Your task to perform on an android device: delete a single message in the gmail app Image 0: 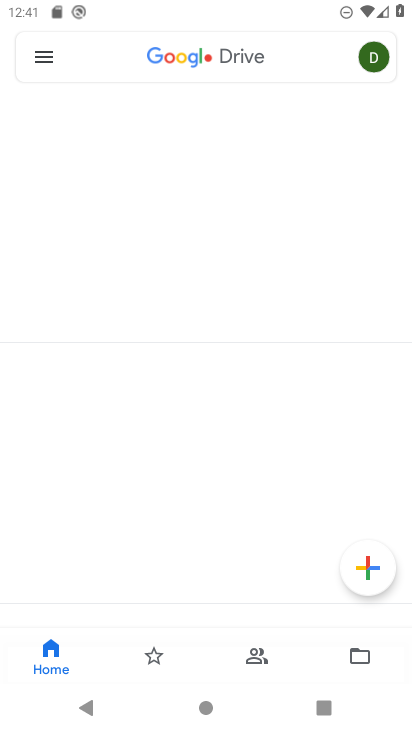
Step 0: drag from (206, 600) to (337, 136)
Your task to perform on an android device: delete a single message in the gmail app Image 1: 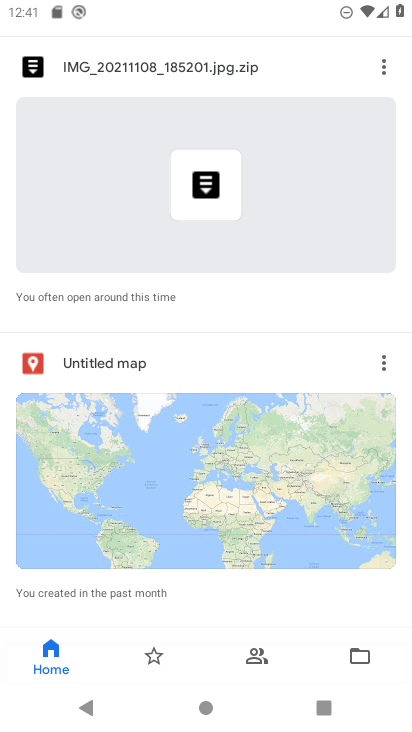
Step 1: press home button
Your task to perform on an android device: delete a single message in the gmail app Image 2: 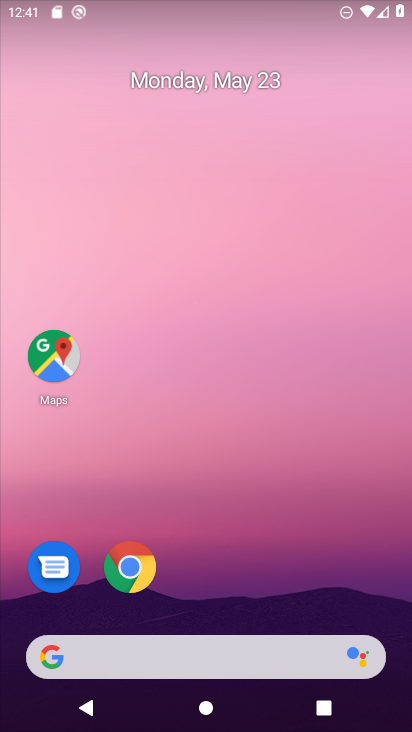
Step 2: drag from (239, 613) to (263, 124)
Your task to perform on an android device: delete a single message in the gmail app Image 3: 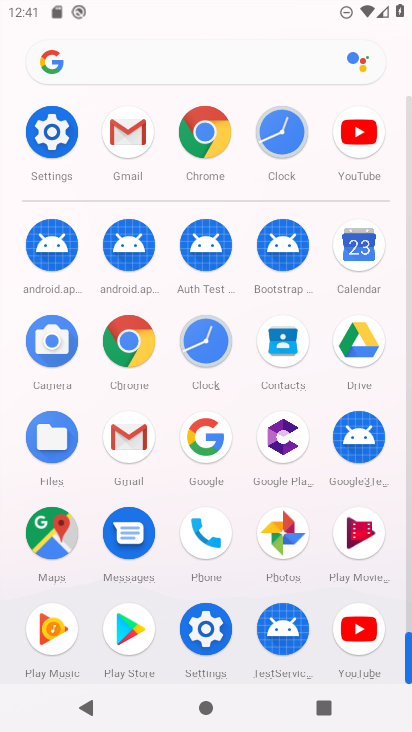
Step 3: click (120, 168)
Your task to perform on an android device: delete a single message in the gmail app Image 4: 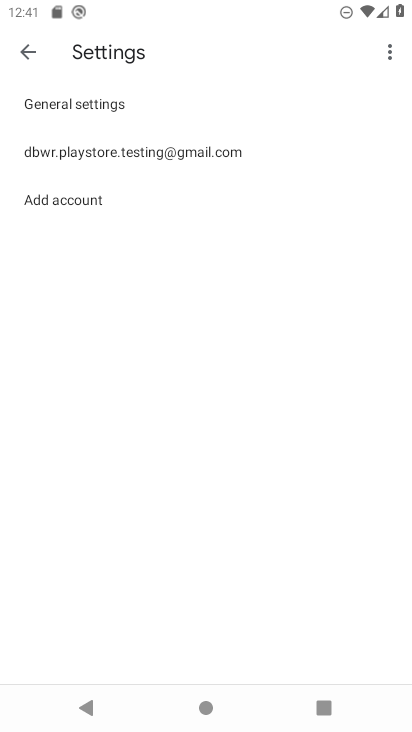
Step 4: click (38, 48)
Your task to perform on an android device: delete a single message in the gmail app Image 5: 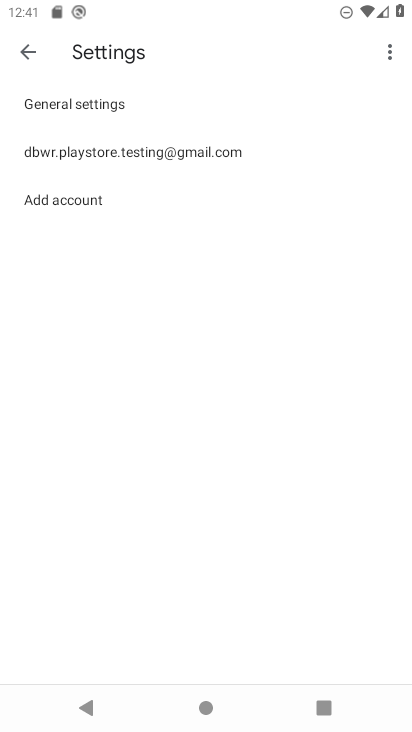
Step 5: click (38, 48)
Your task to perform on an android device: delete a single message in the gmail app Image 6: 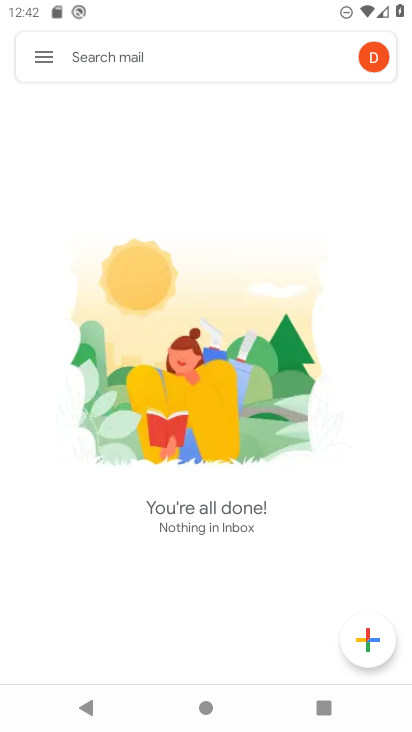
Step 6: task complete